Your task to perform on an android device: Turn on the flashlight Image 0: 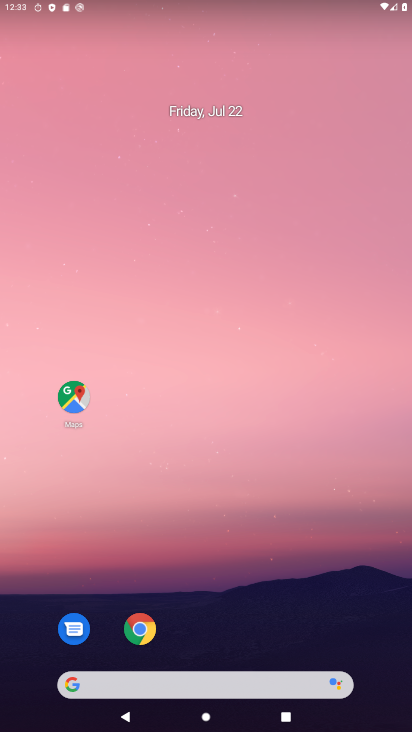
Step 0: drag from (203, 570) to (253, 110)
Your task to perform on an android device: Turn on the flashlight Image 1: 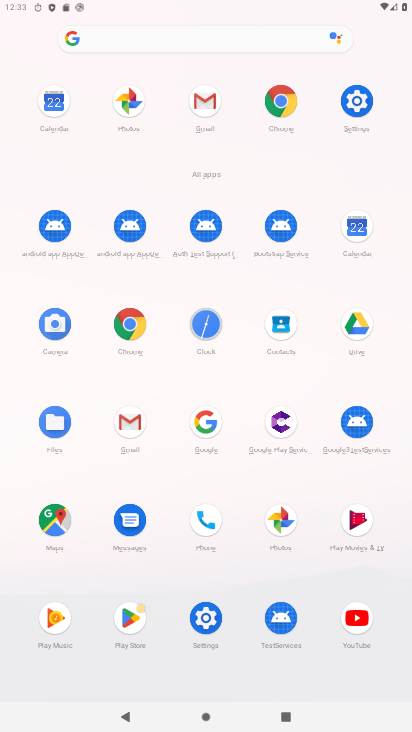
Step 1: click (357, 101)
Your task to perform on an android device: Turn on the flashlight Image 2: 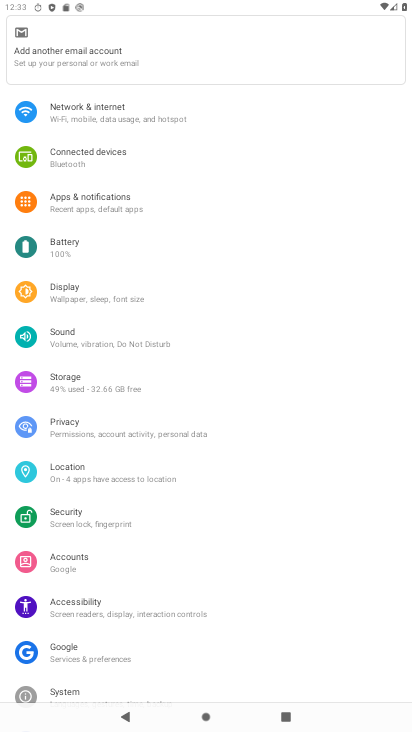
Step 2: drag from (163, 170) to (170, 417)
Your task to perform on an android device: Turn on the flashlight Image 3: 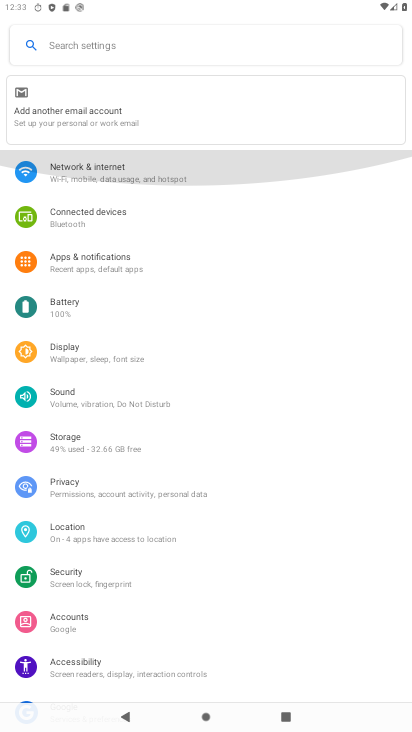
Step 3: click (145, 48)
Your task to perform on an android device: Turn on the flashlight Image 4: 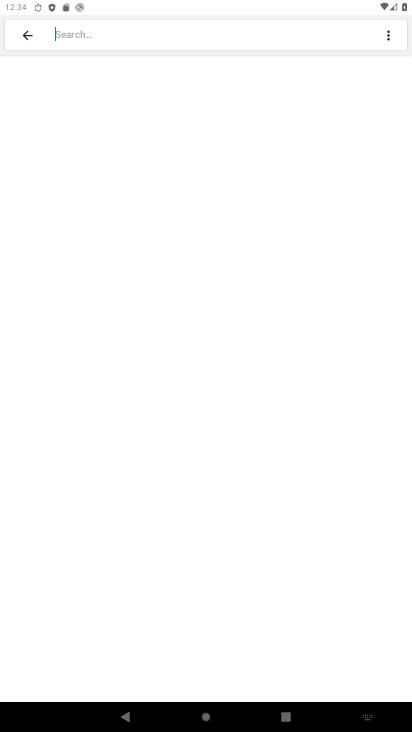
Step 4: type "flash"
Your task to perform on an android device: Turn on the flashlight Image 5: 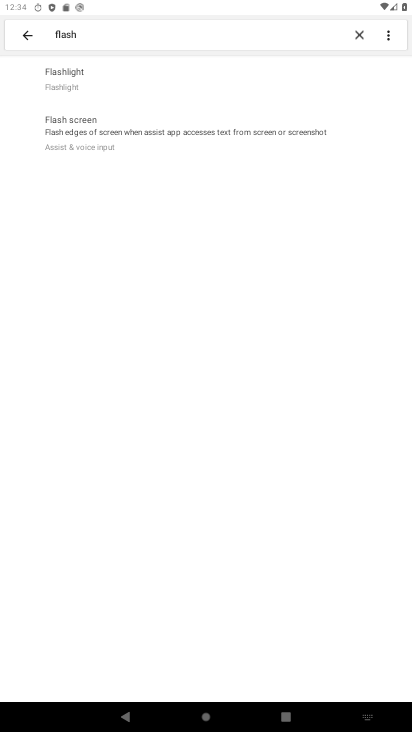
Step 5: task complete